Your task to perform on an android device: open app "Duolingo: language lessons" Image 0: 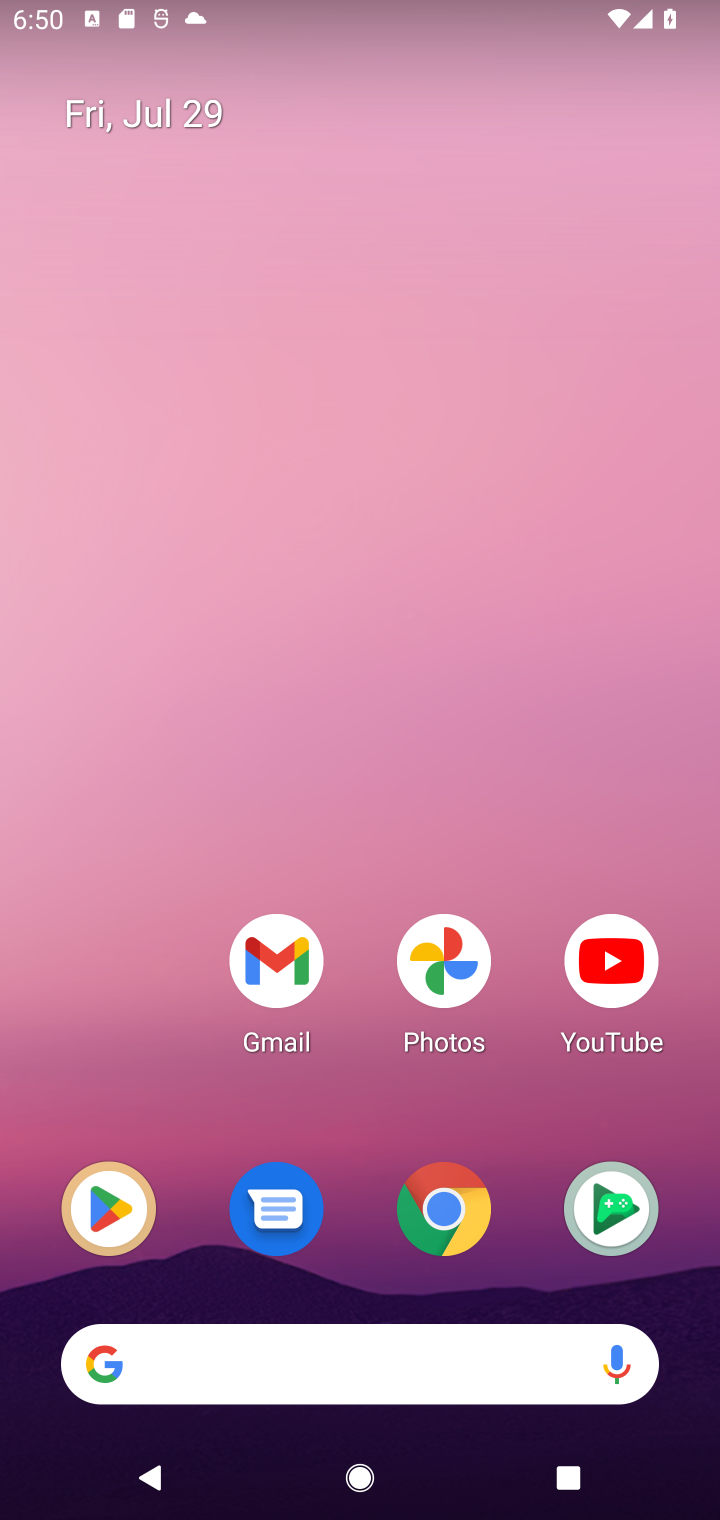
Step 0: drag from (368, 1283) to (422, 279)
Your task to perform on an android device: open app "Duolingo: language lessons" Image 1: 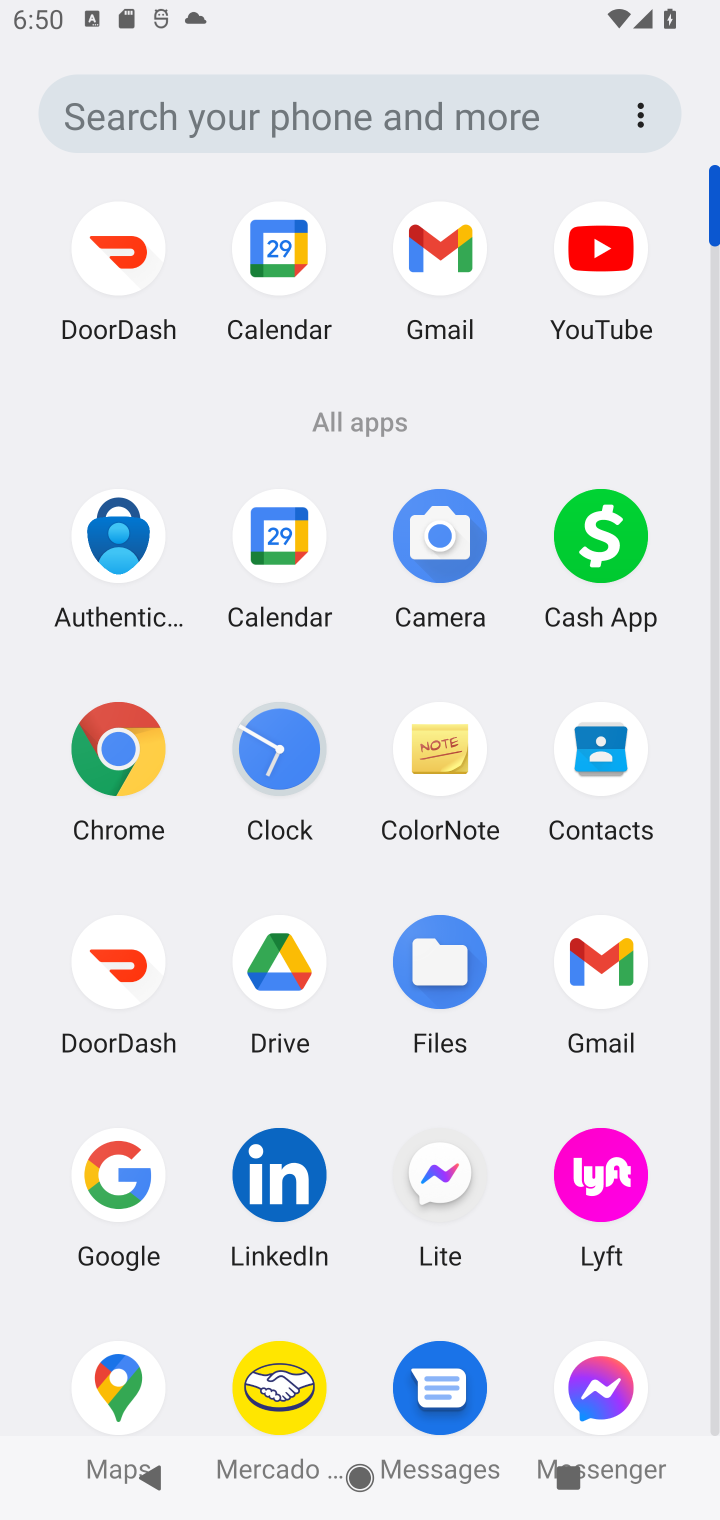
Step 1: click (714, 1099)
Your task to perform on an android device: open app "Duolingo: language lessons" Image 2: 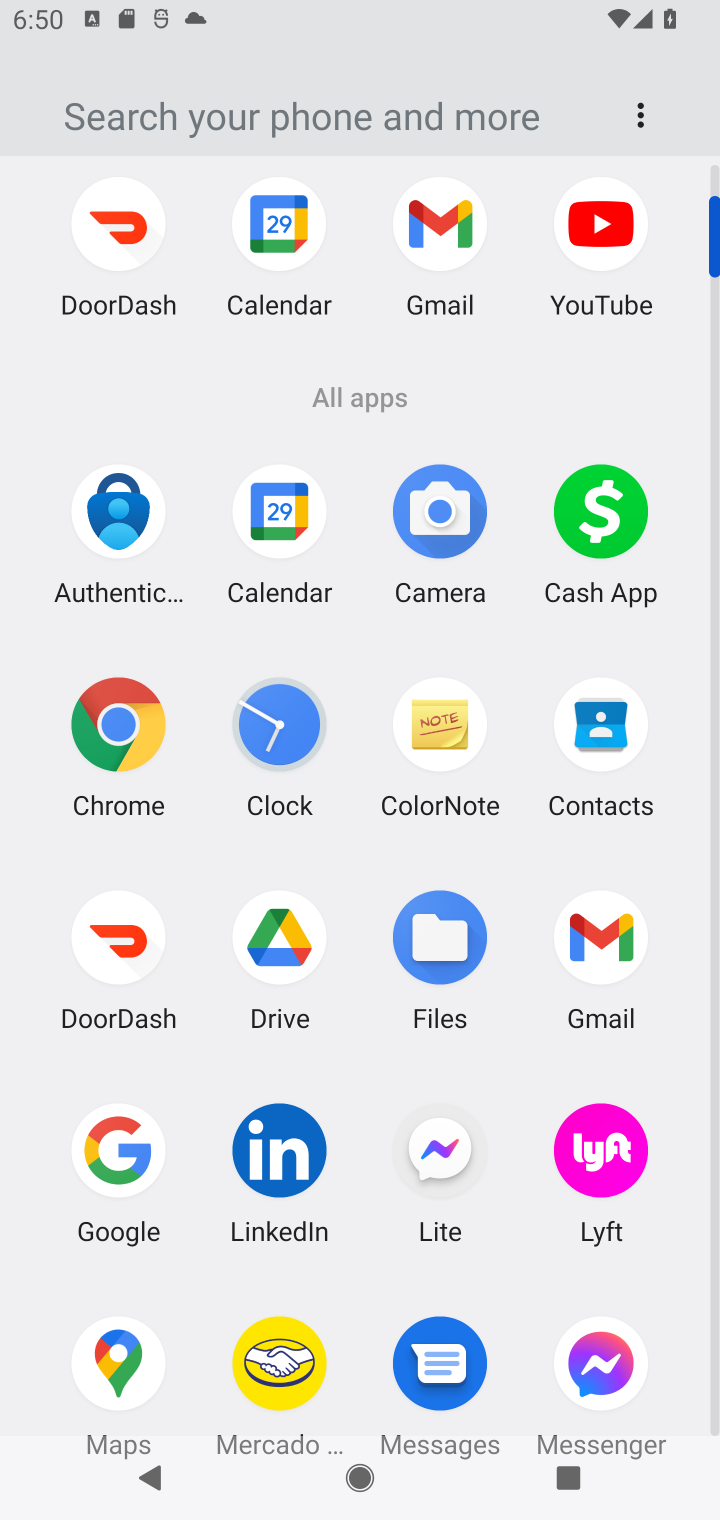
Step 2: drag from (710, 1221) to (714, 971)
Your task to perform on an android device: open app "Duolingo: language lessons" Image 3: 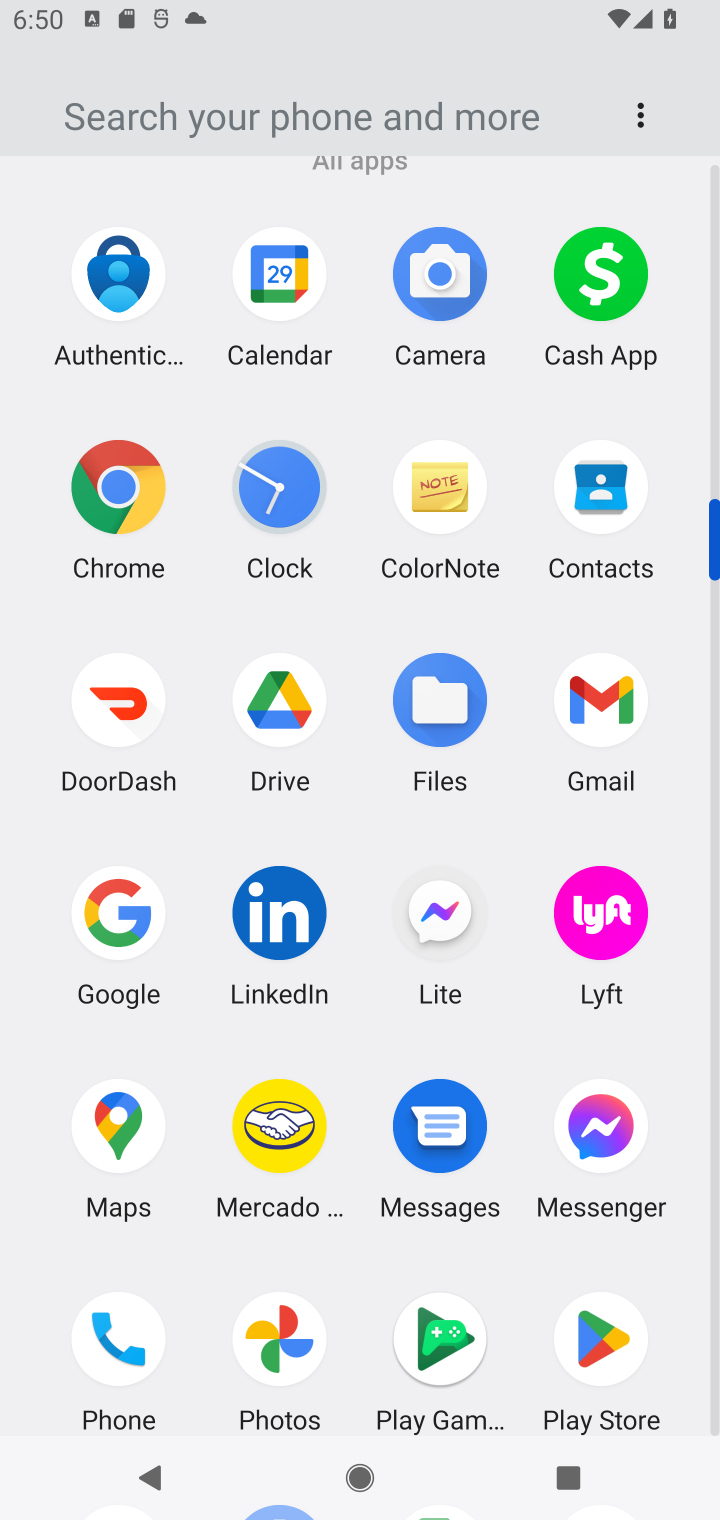
Step 3: click (605, 1333)
Your task to perform on an android device: open app "Duolingo: language lessons" Image 4: 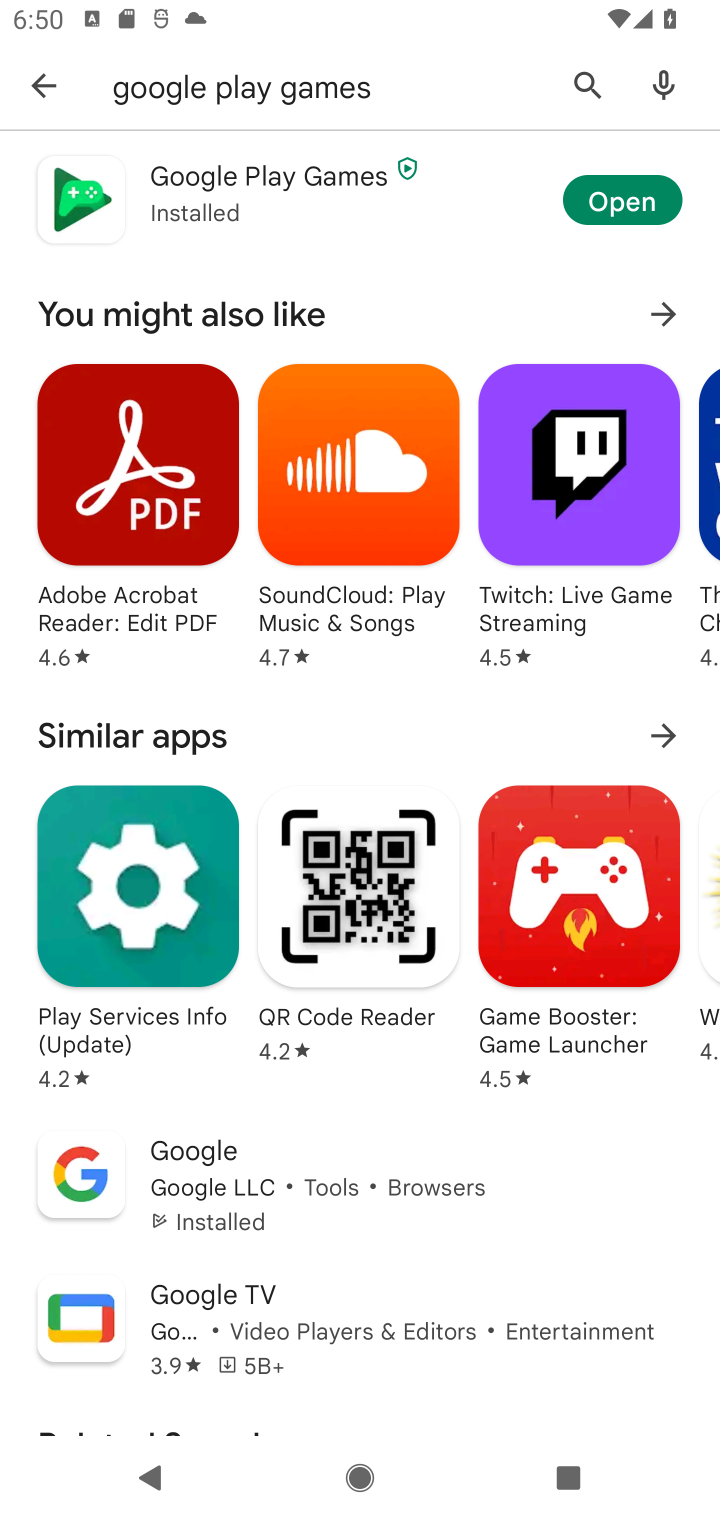
Step 4: click (590, 81)
Your task to perform on an android device: open app "Duolingo: language lessons" Image 5: 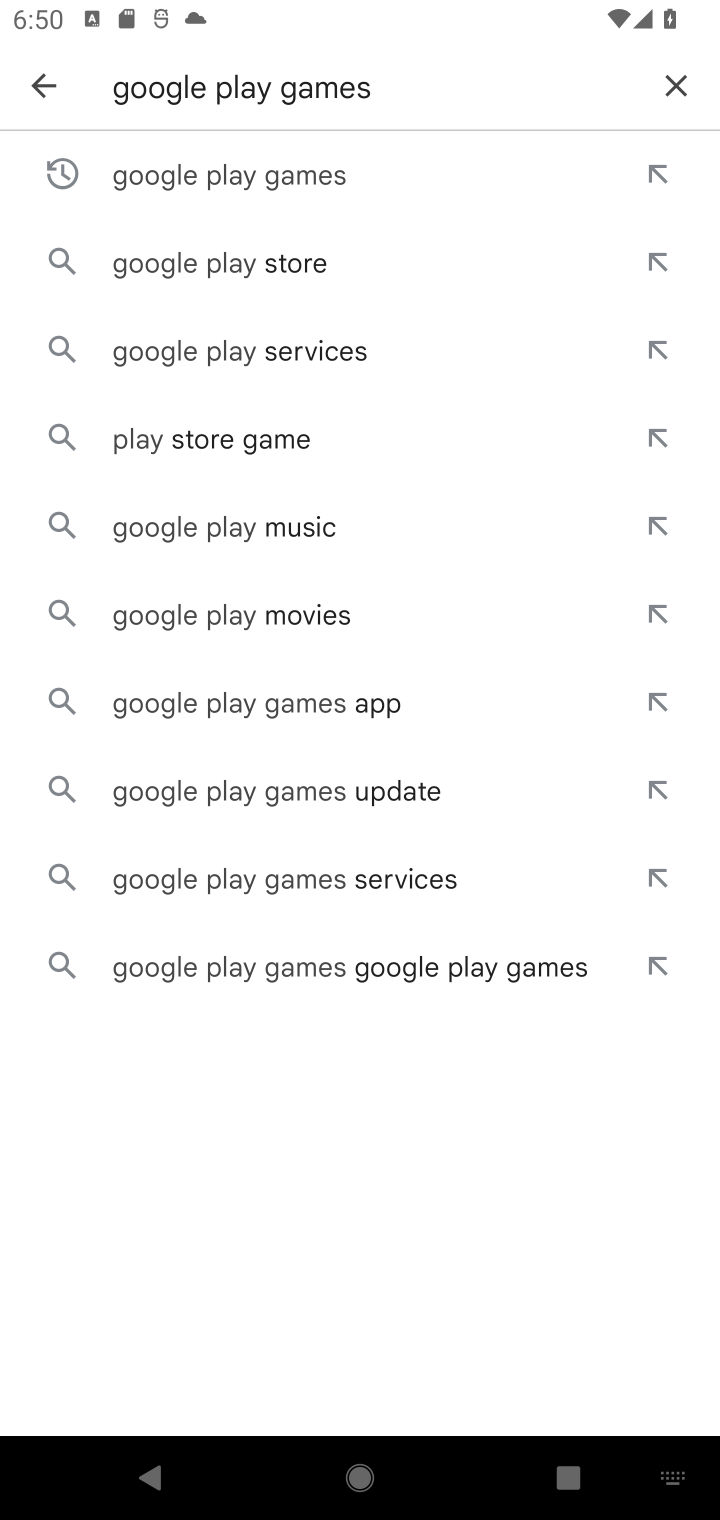
Step 5: click (657, 90)
Your task to perform on an android device: open app "Duolingo: language lessons" Image 6: 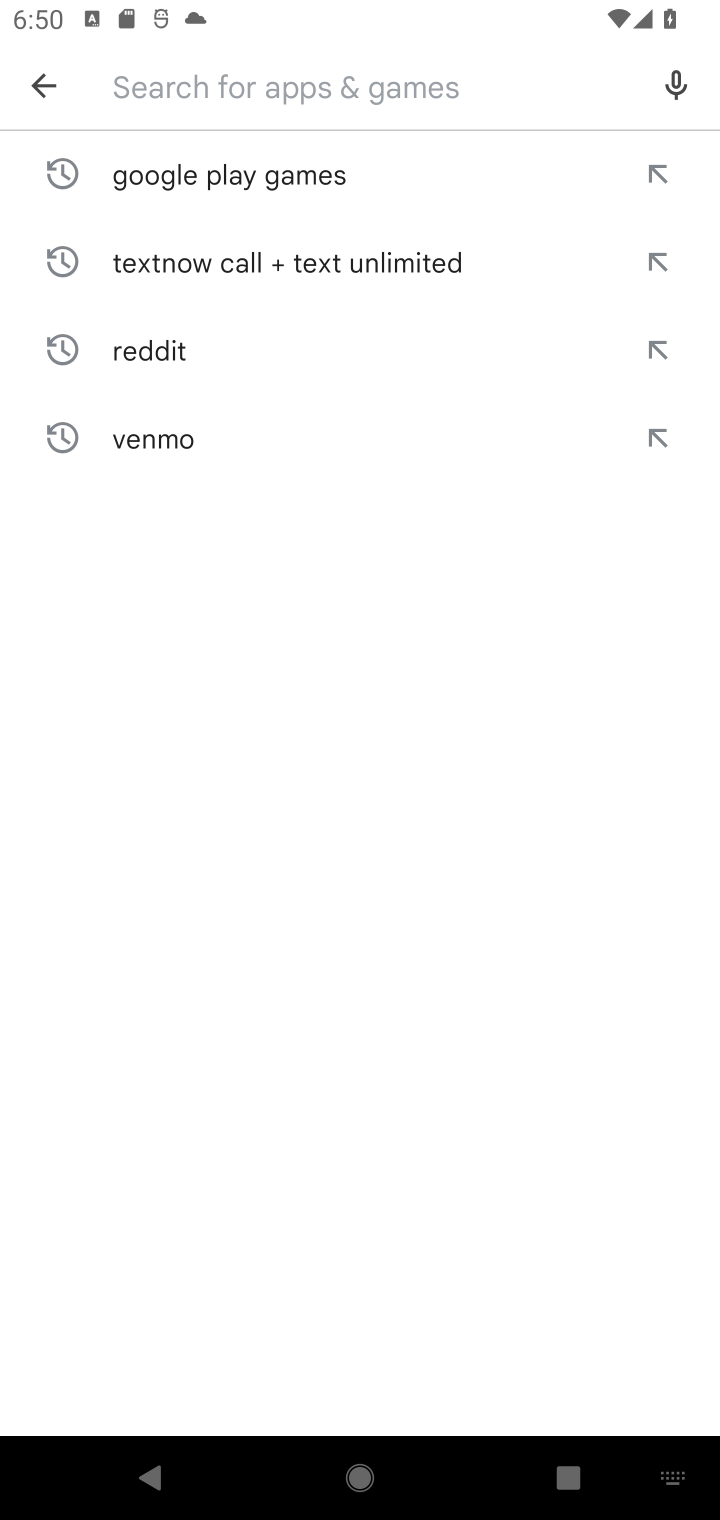
Step 6: type "Duolingo: language lessons"
Your task to perform on an android device: open app "Duolingo: language lessons" Image 7: 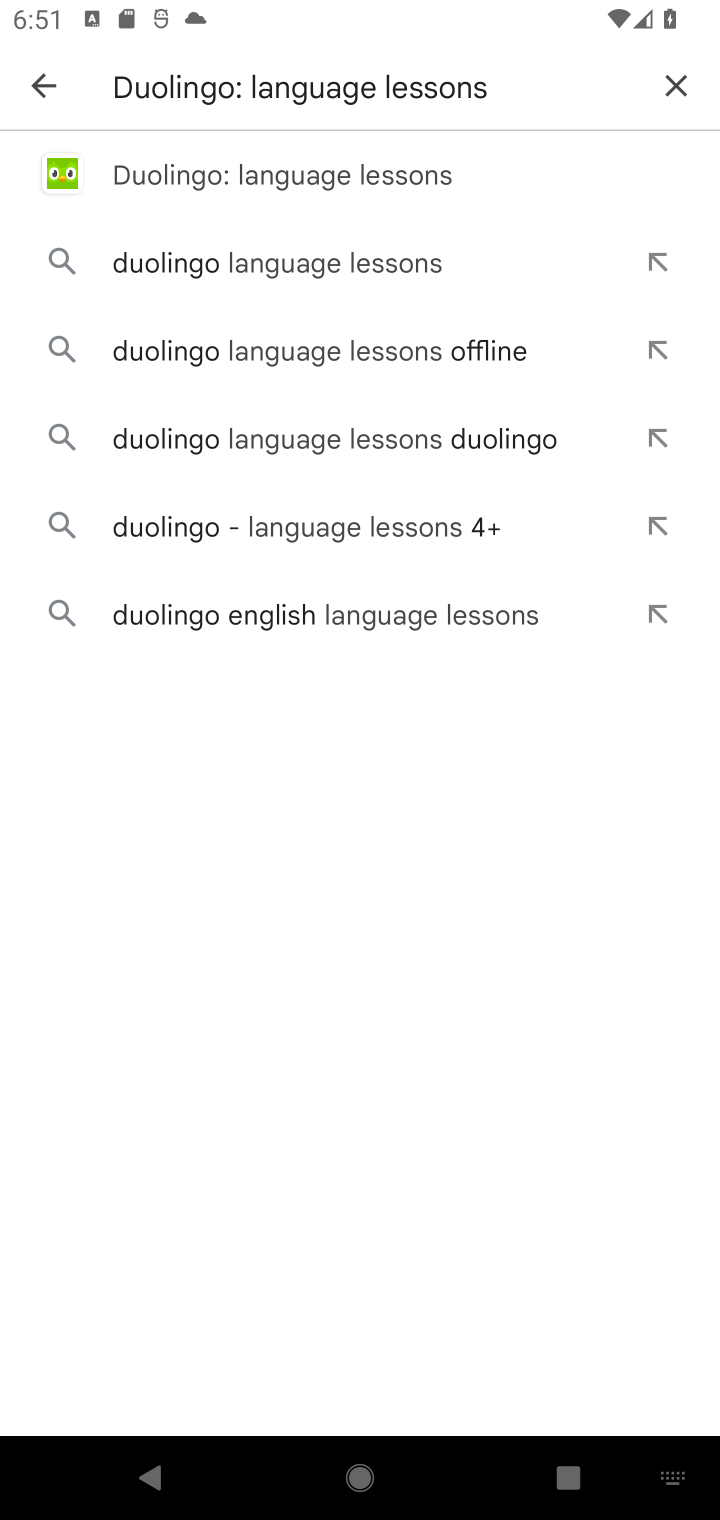
Step 7: click (275, 194)
Your task to perform on an android device: open app "Duolingo: language lessons" Image 8: 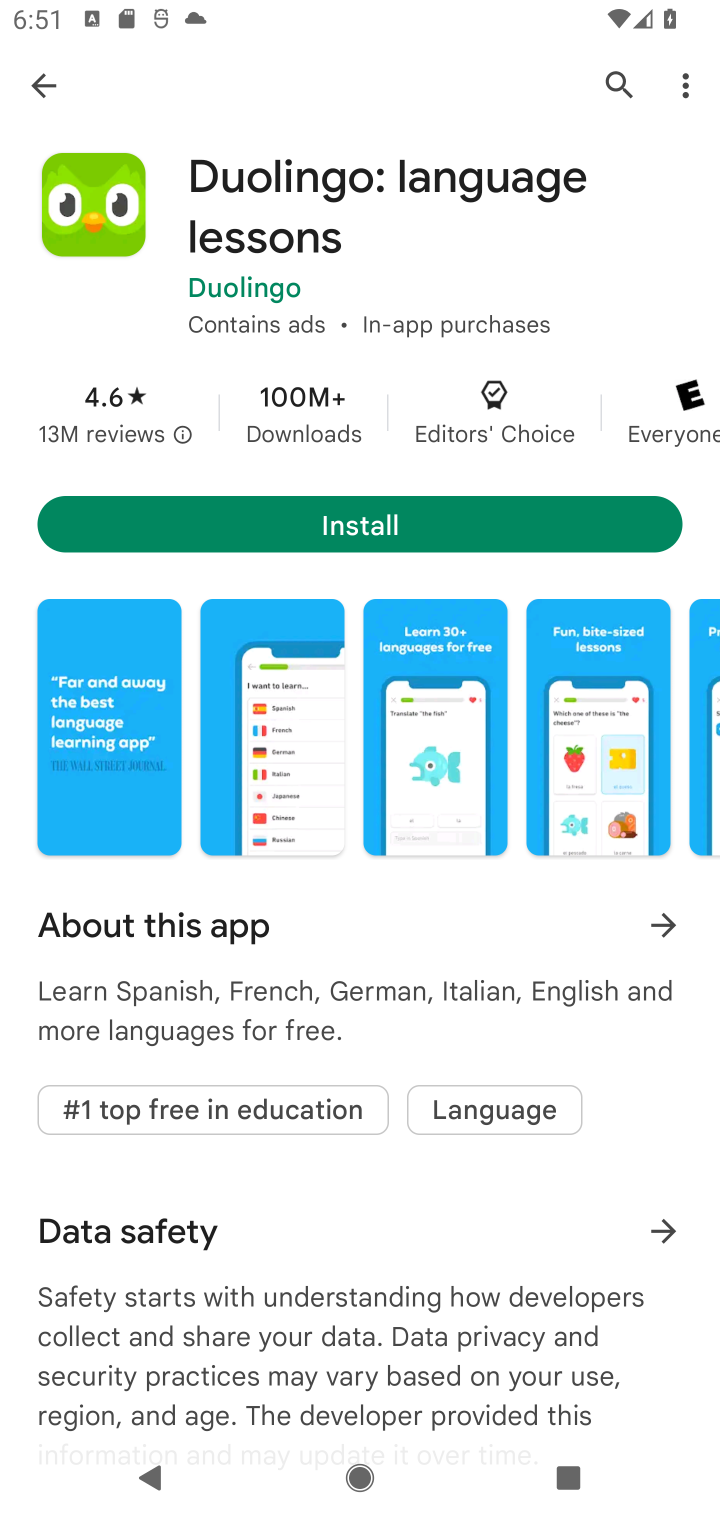
Step 8: task complete